Your task to perform on an android device: Search for vegetarian restaurants on Maps Image 0: 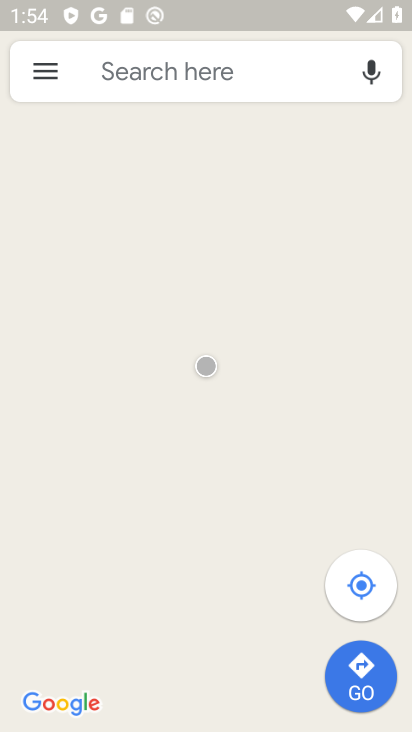
Step 0: press home button
Your task to perform on an android device: Search for vegetarian restaurants on Maps Image 1: 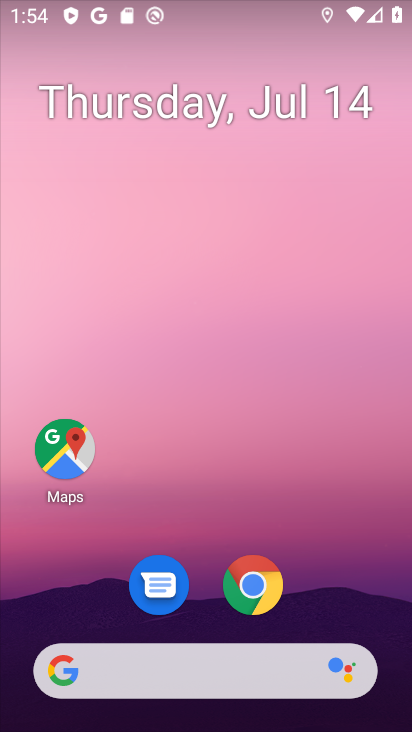
Step 1: drag from (207, 515) to (258, 0)
Your task to perform on an android device: Search for vegetarian restaurants on Maps Image 2: 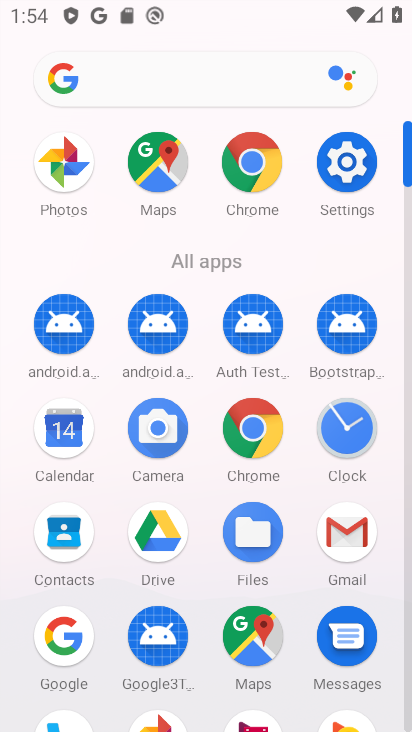
Step 2: click (155, 164)
Your task to perform on an android device: Search for vegetarian restaurants on Maps Image 3: 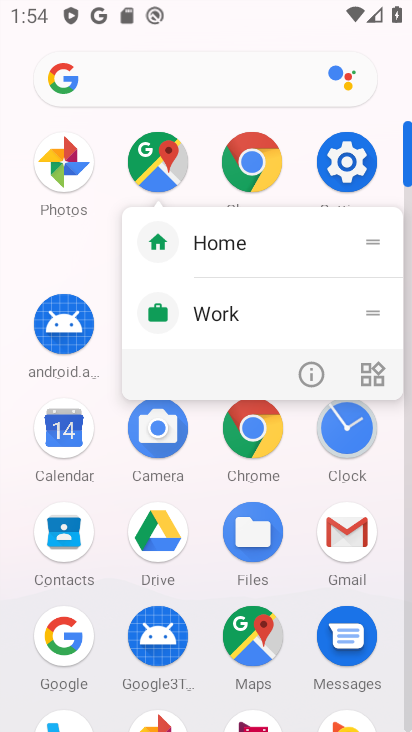
Step 3: click (155, 162)
Your task to perform on an android device: Search for vegetarian restaurants on Maps Image 4: 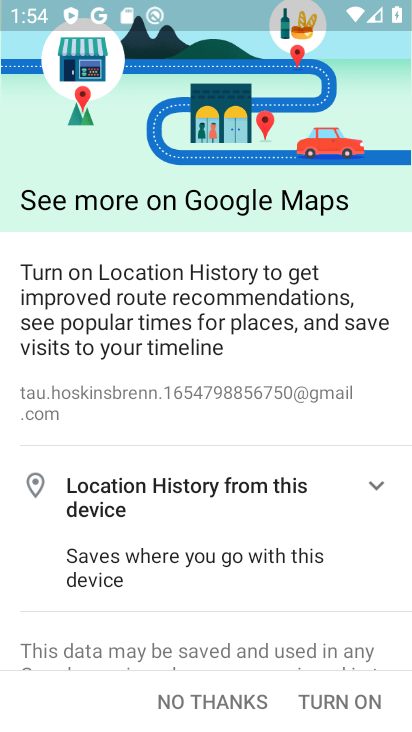
Step 4: click (318, 706)
Your task to perform on an android device: Search for vegetarian restaurants on Maps Image 5: 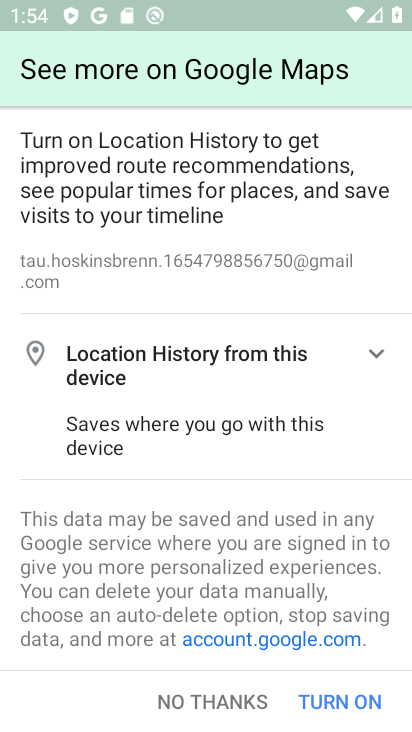
Step 5: click (314, 699)
Your task to perform on an android device: Search for vegetarian restaurants on Maps Image 6: 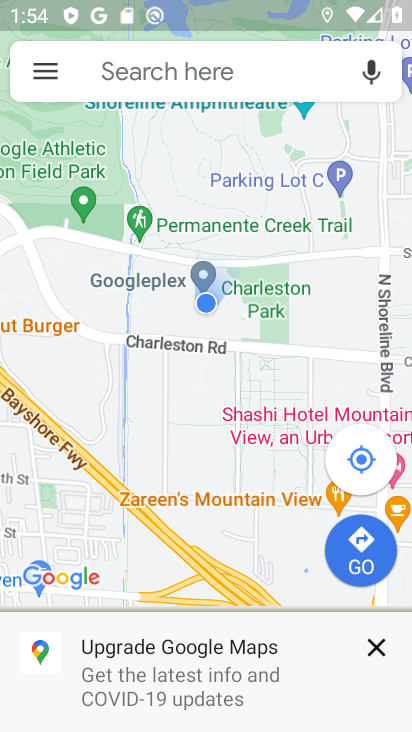
Step 6: click (216, 70)
Your task to perform on an android device: Search for vegetarian restaurants on Maps Image 7: 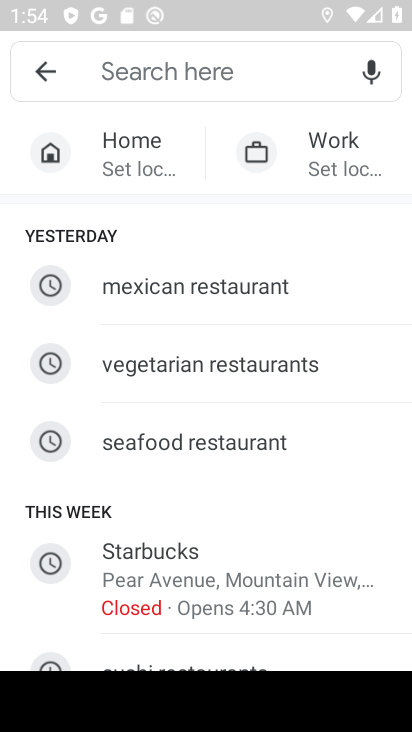
Step 7: click (289, 351)
Your task to perform on an android device: Search for vegetarian restaurants on Maps Image 8: 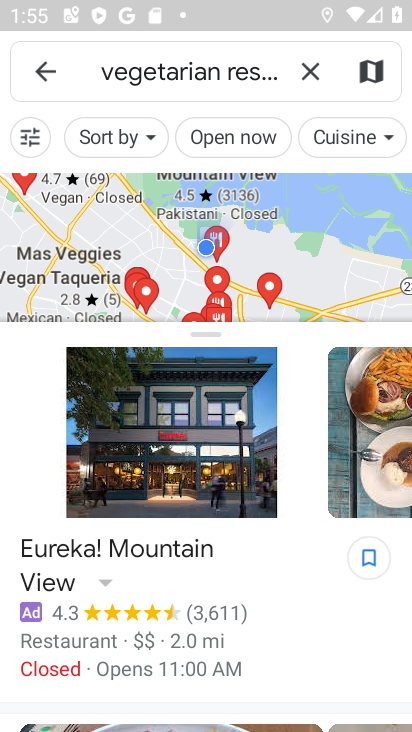
Step 8: task complete